Your task to perform on an android device: Go to wifi settings Image 0: 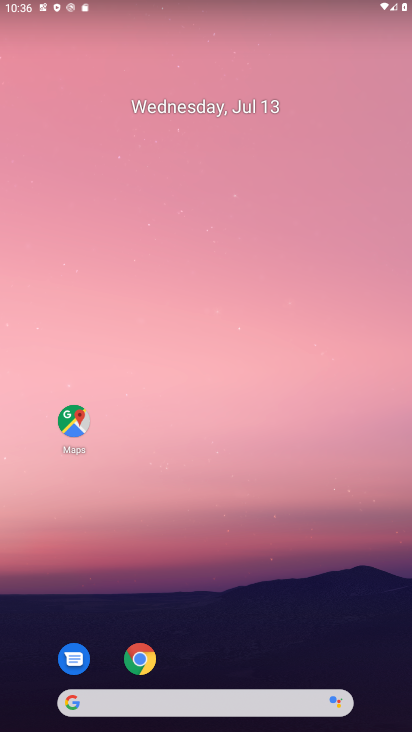
Step 0: drag from (231, 694) to (223, 278)
Your task to perform on an android device: Go to wifi settings Image 1: 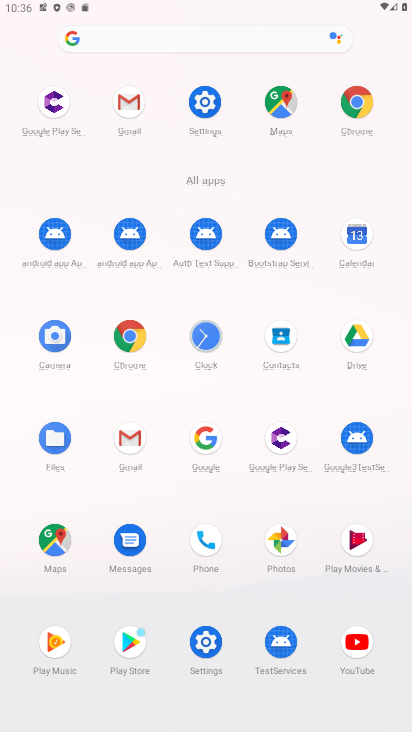
Step 1: click (204, 119)
Your task to perform on an android device: Go to wifi settings Image 2: 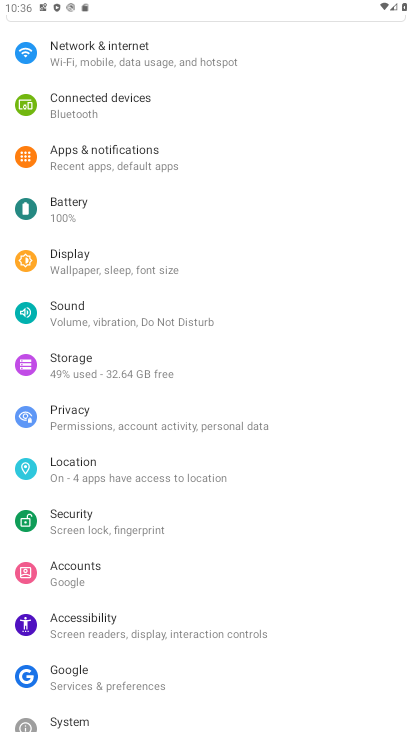
Step 2: drag from (92, 133) to (129, 452)
Your task to perform on an android device: Go to wifi settings Image 3: 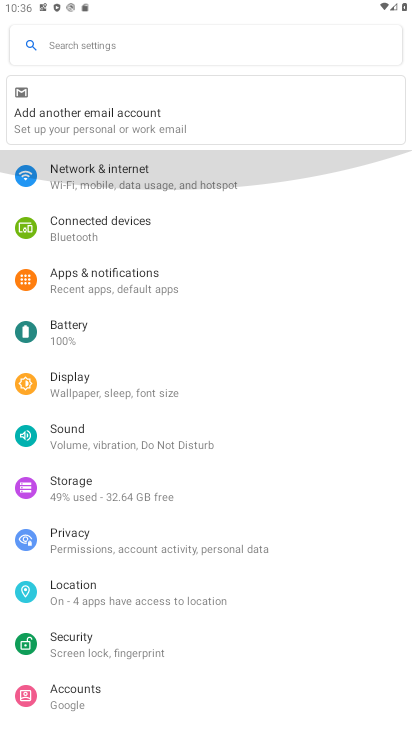
Step 3: drag from (122, 232) to (154, 302)
Your task to perform on an android device: Go to wifi settings Image 4: 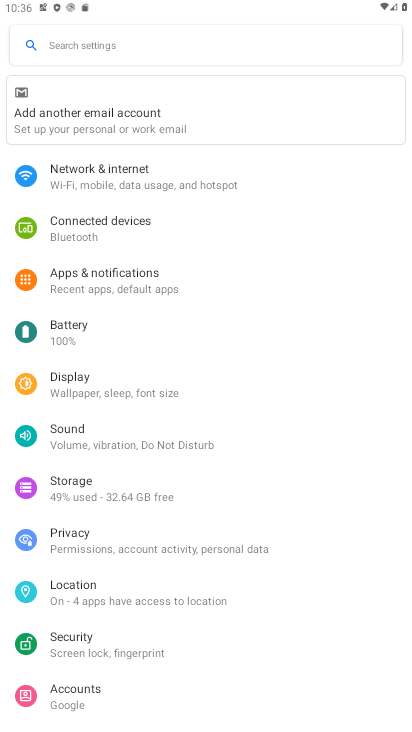
Step 4: click (113, 172)
Your task to perform on an android device: Go to wifi settings Image 5: 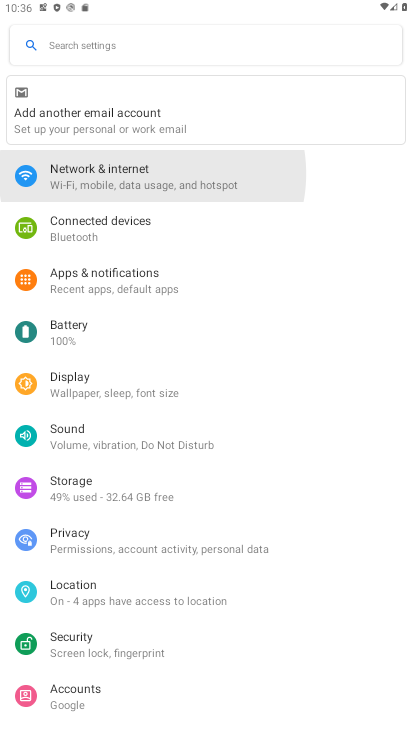
Step 5: click (118, 175)
Your task to perform on an android device: Go to wifi settings Image 6: 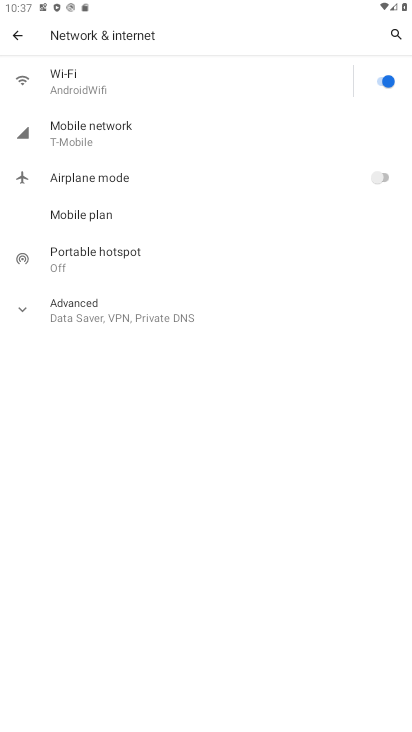
Step 6: click (76, 85)
Your task to perform on an android device: Go to wifi settings Image 7: 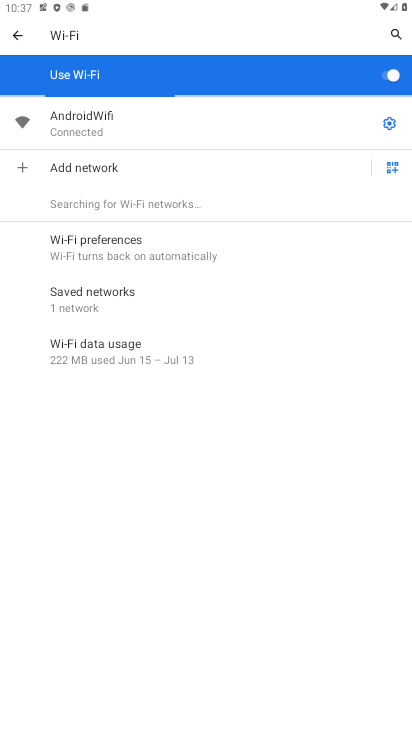
Step 7: task complete